Your task to perform on an android device: turn off improve location accuracy Image 0: 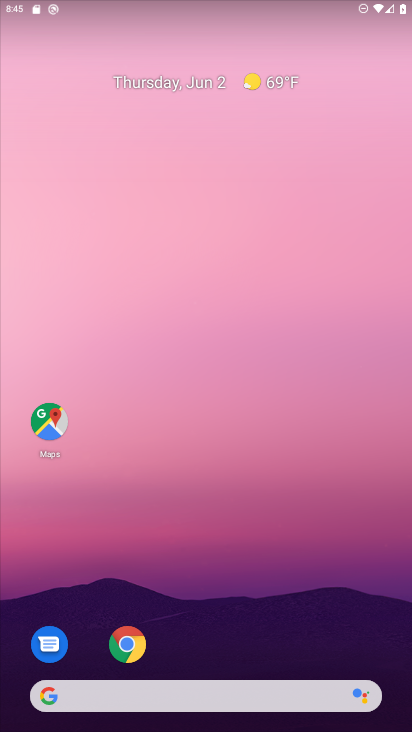
Step 0: drag from (203, 444) to (130, 12)
Your task to perform on an android device: turn off improve location accuracy Image 1: 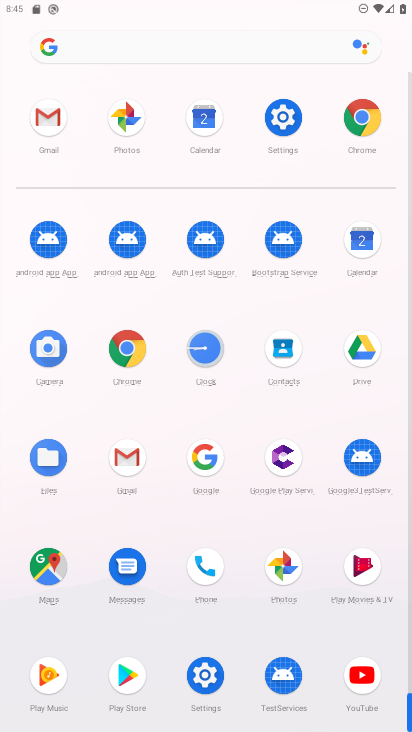
Step 1: drag from (9, 592) to (15, 266)
Your task to perform on an android device: turn off improve location accuracy Image 2: 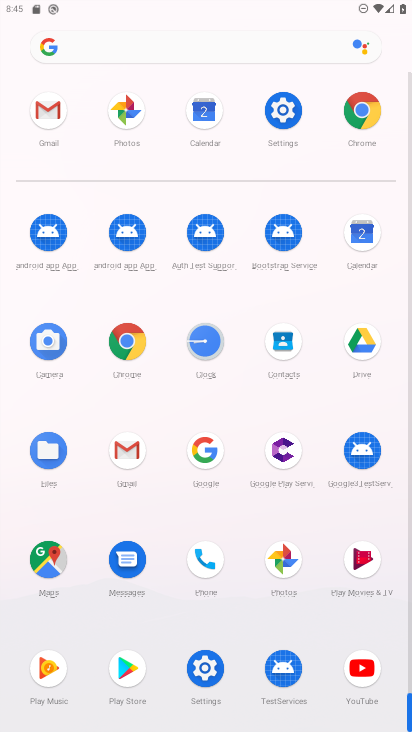
Step 2: click (203, 665)
Your task to perform on an android device: turn off improve location accuracy Image 3: 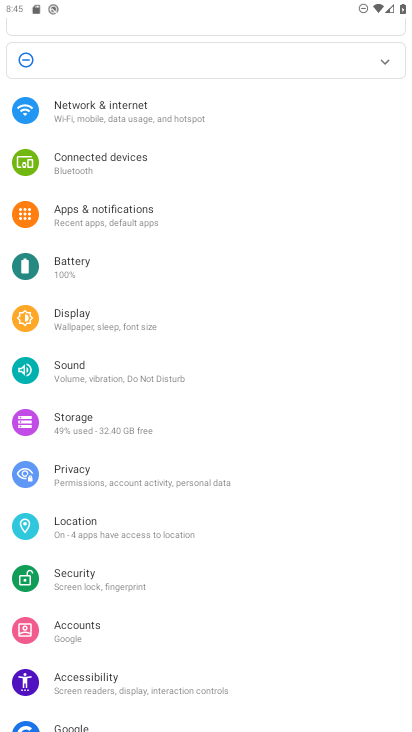
Step 3: click (99, 521)
Your task to perform on an android device: turn off improve location accuracy Image 4: 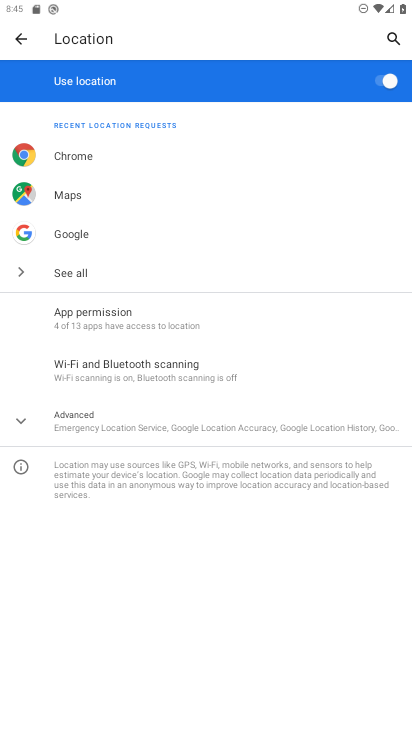
Step 4: click (23, 422)
Your task to perform on an android device: turn off improve location accuracy Image 5: 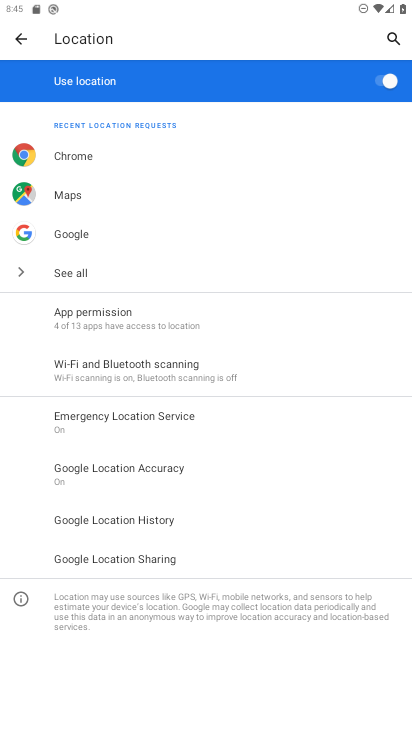
Step 5: click (171, 466)
Your task to perform on an android device: turn off improve location accuracy Image 6: 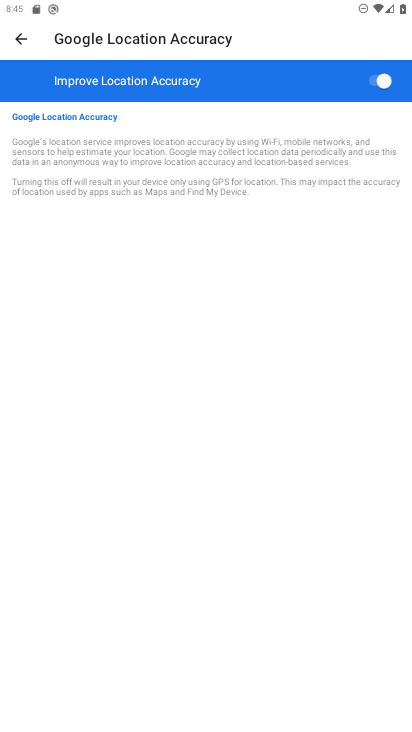
Step 6: click (373, 85)
Your task to perform on an android device: turn off improve location accuracy Image 7: 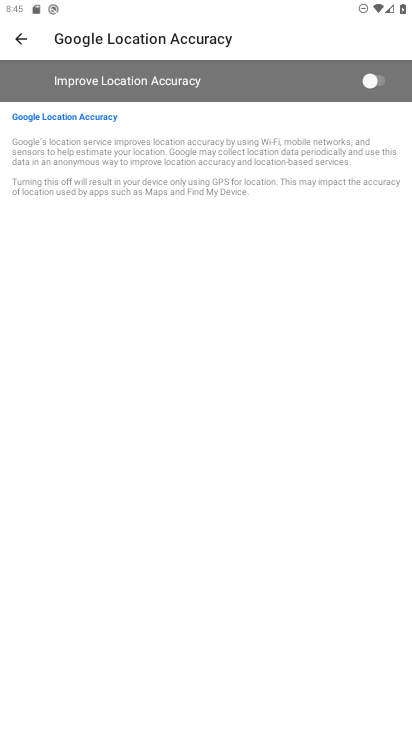
Step 7: task complete